Your task to perform on an android device: Open maps Image 0: 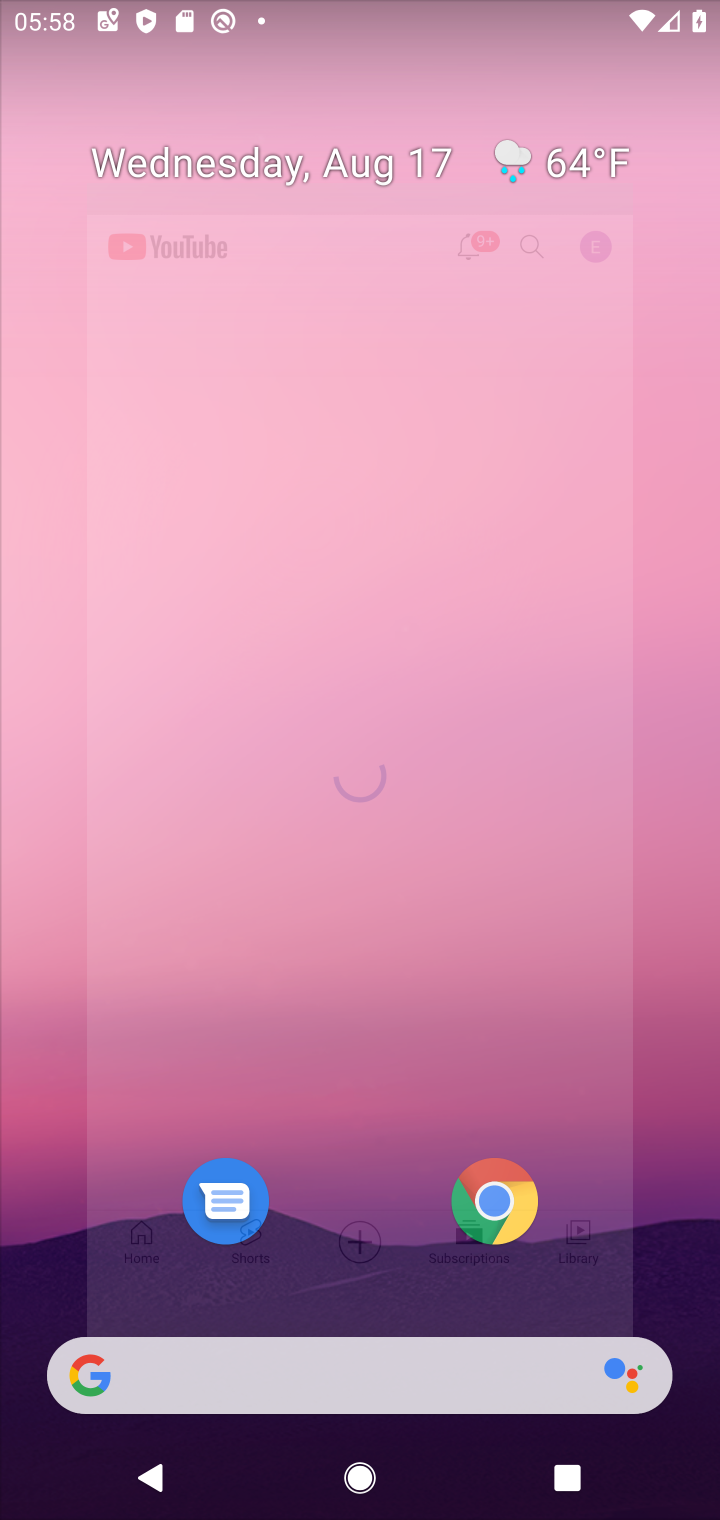
Step 0: press home button
Your task to perform on an android device: Open maps Image 1: 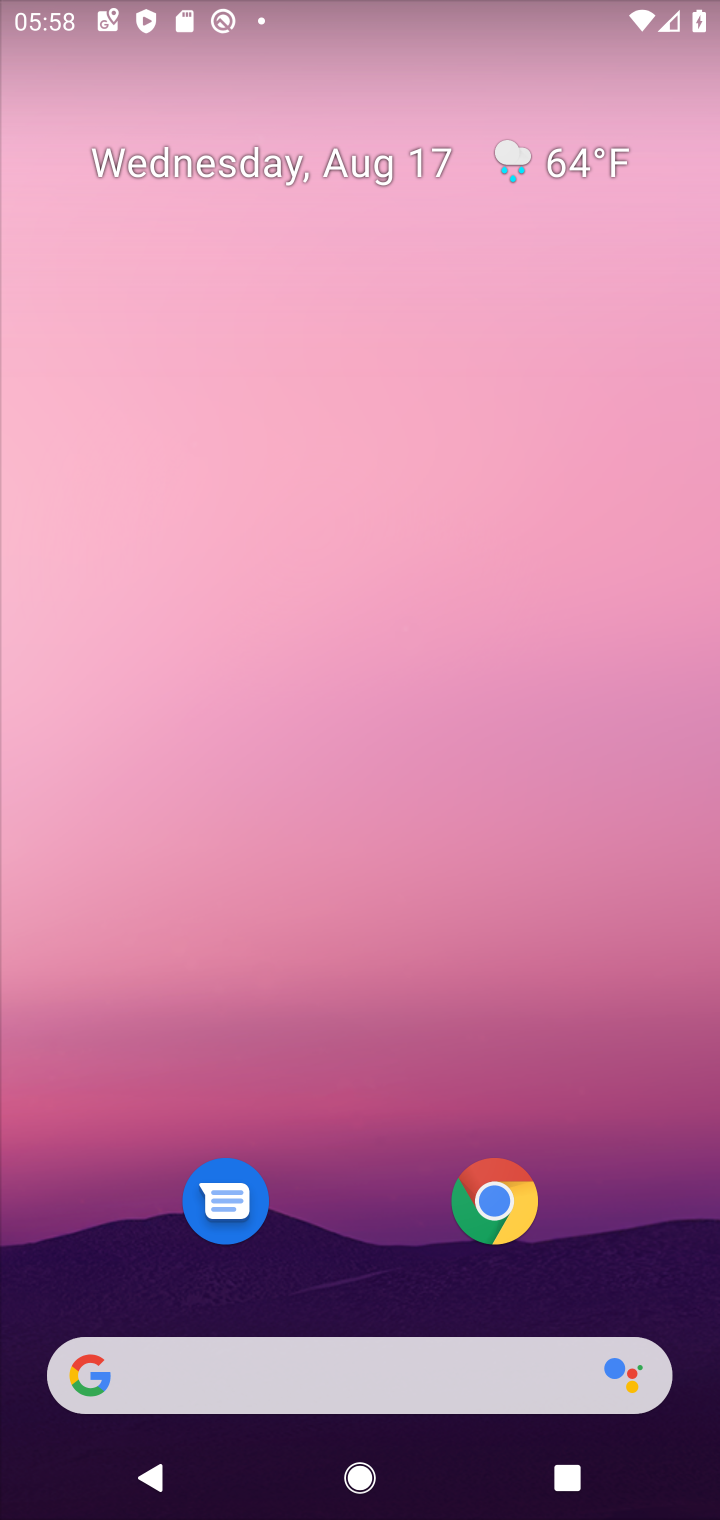
Step 1: drag from (325, 1169) to (706, 748)
Your task to perform on an android device: Open maps Image 2: 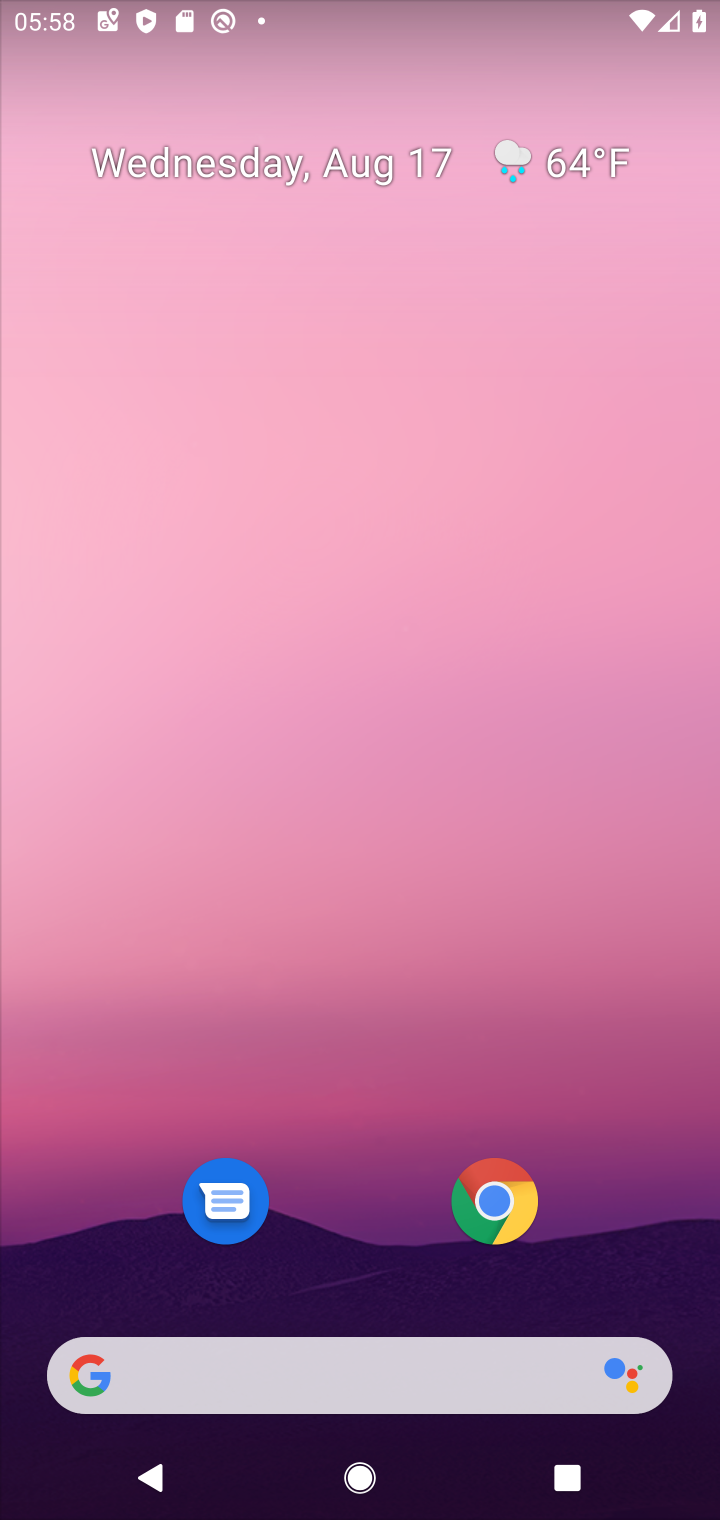
Step 2: drag from (358, 1177) to (665, 755)
Your task to perform on an android device: Open maps Image 3: 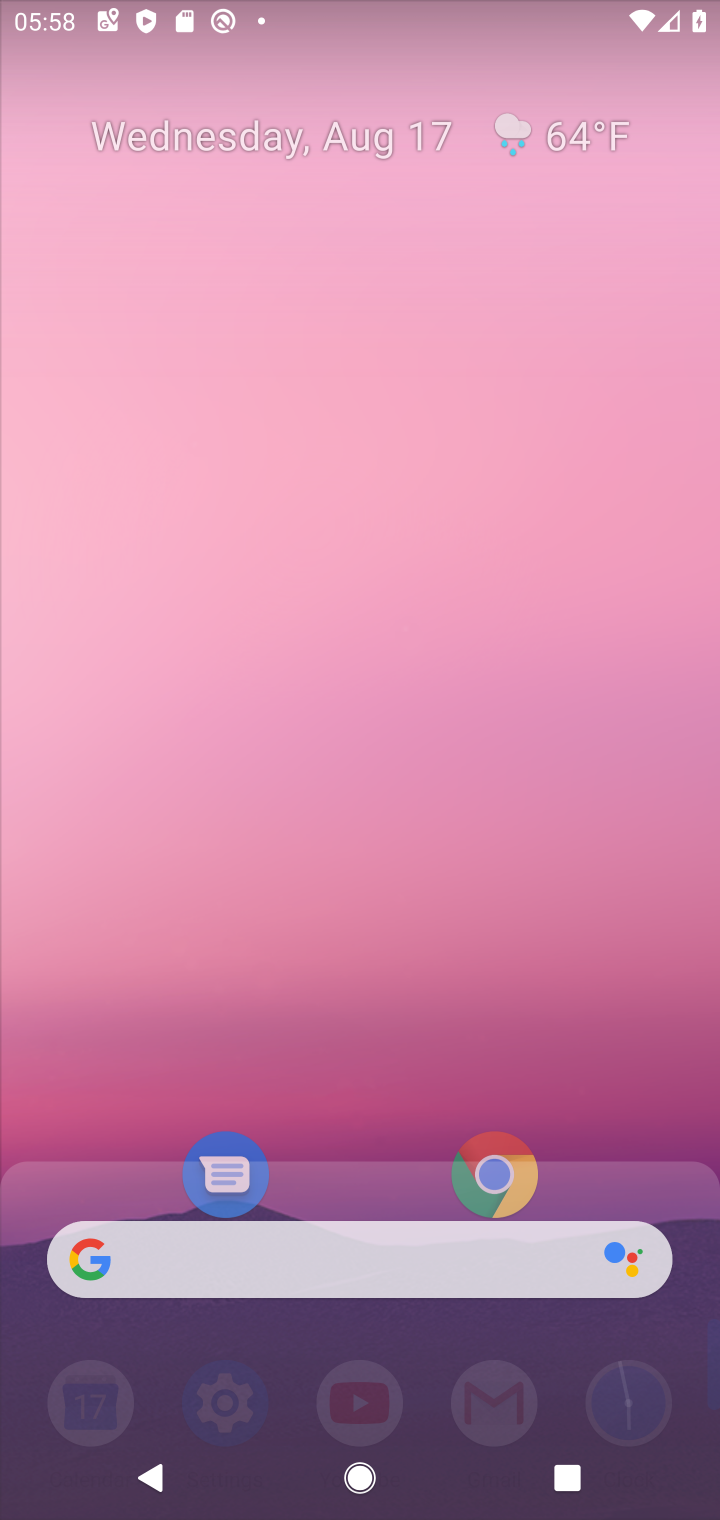
Step 3: drag from (365, 1211) to (435, 124)
Your task to perform on an android device: Open maps Image 4: 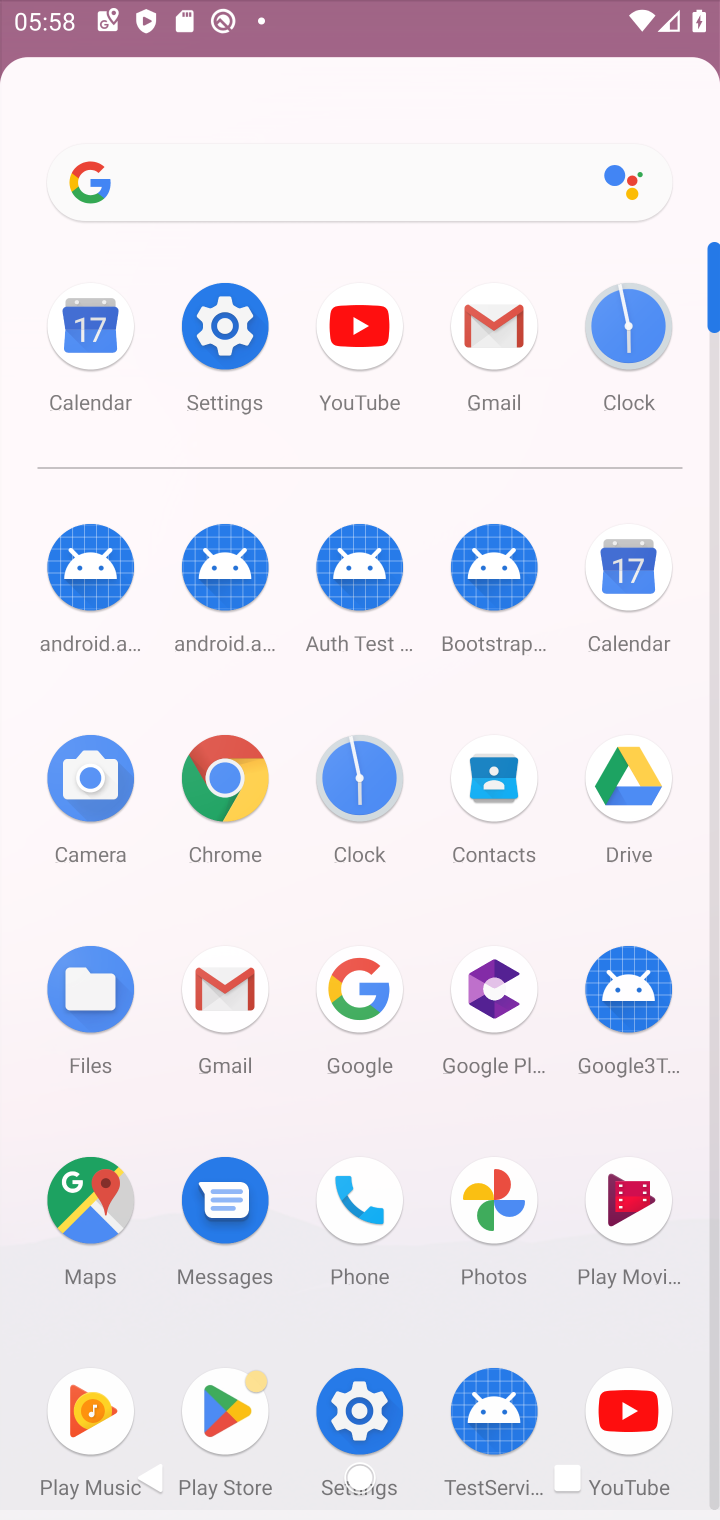
Step 4: drag from (392, 1191) to (413, 109)
Your task to perform on an android device: Open maps Image 5: 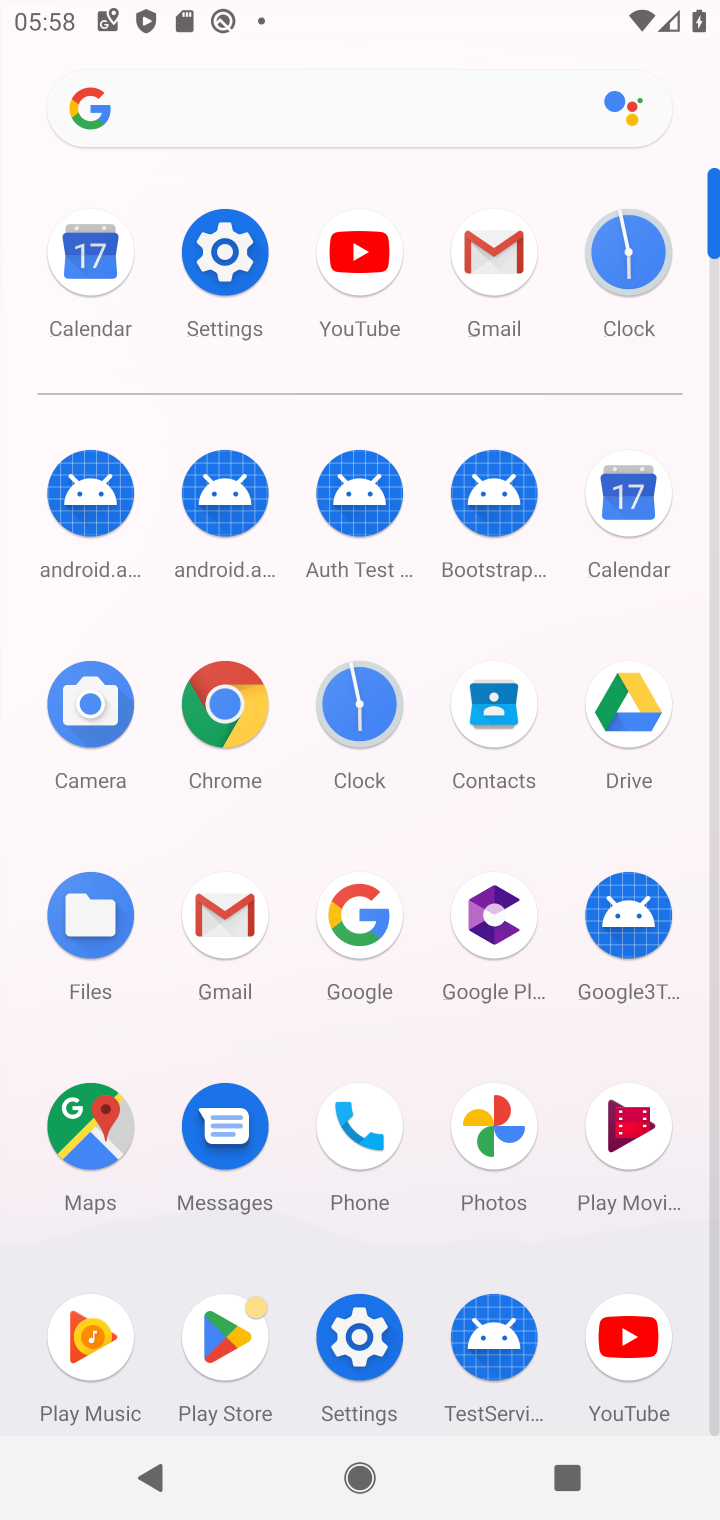
Step 5: click (65, 1147)
Your task to perform on an android device: Open maps Image 6: 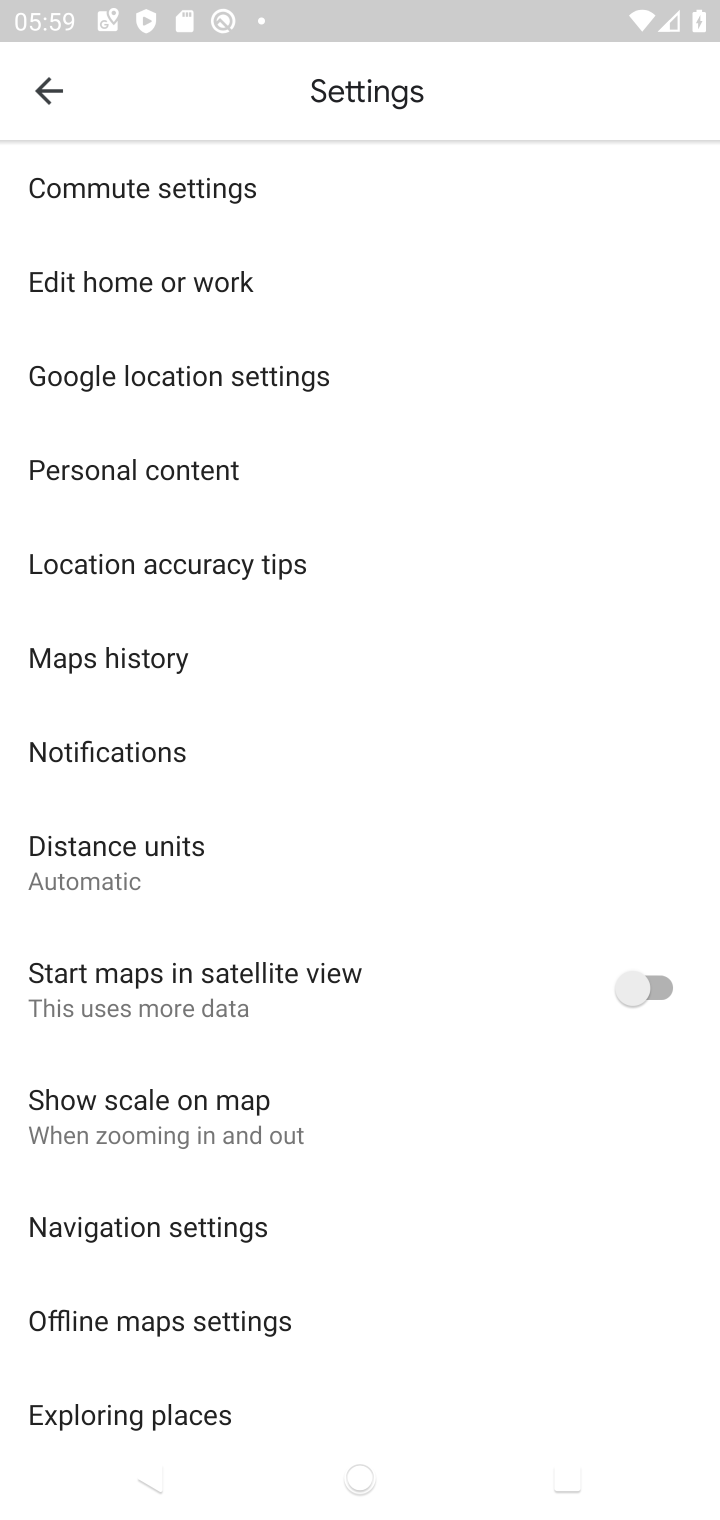
Step 6: task complete